Your task to perform on an android device: What is the news today? Image 0: 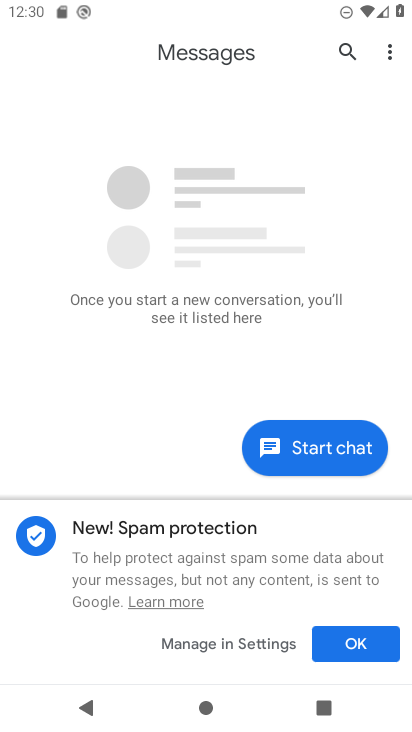
Step 0: press home button
Your task to perform on an android device: What is the news today? Image 1: 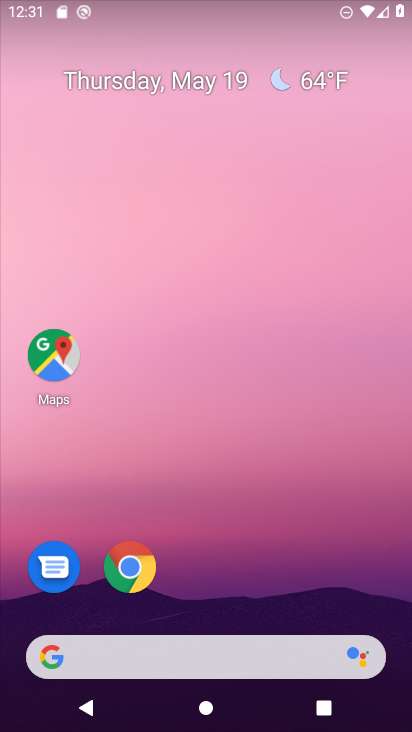
Step 1: drag from (244, 578) to (280, 71)
Your task to perform on an android device: What is the news today? Image 2: 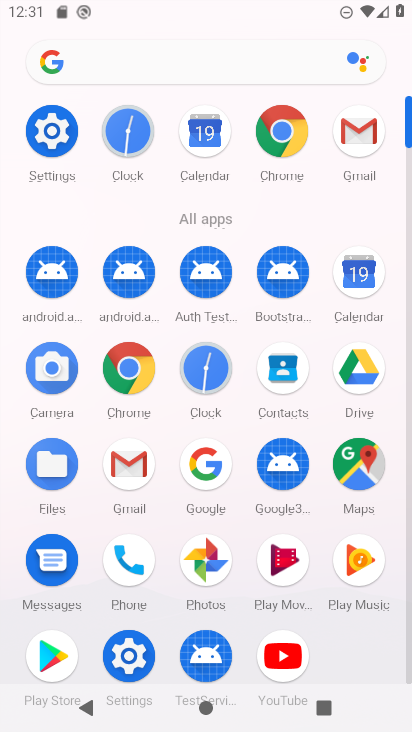
Step 2: click (234, 468)
Your task to perform on an android device: What is the news today? Image 3: 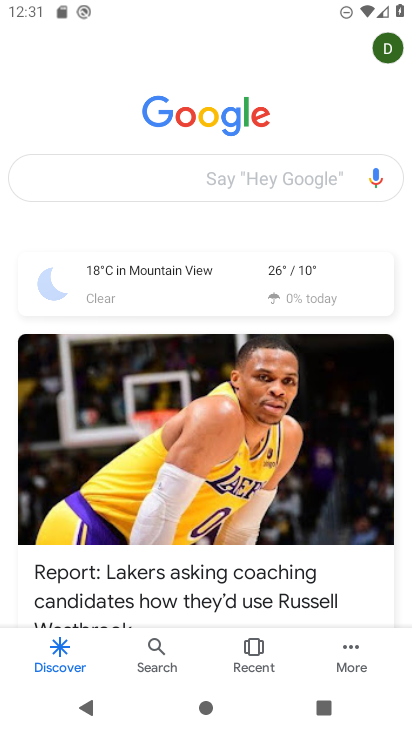
Step 3: click (191, 189)
Your task to perform on an android device: What is the news today? Image 4: 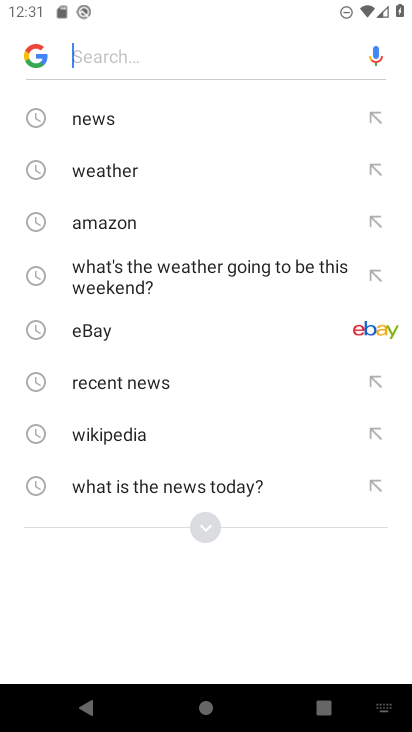
Step 4: click (126, 123)
Your task to perform on an android device: What is the news today? Image 5: 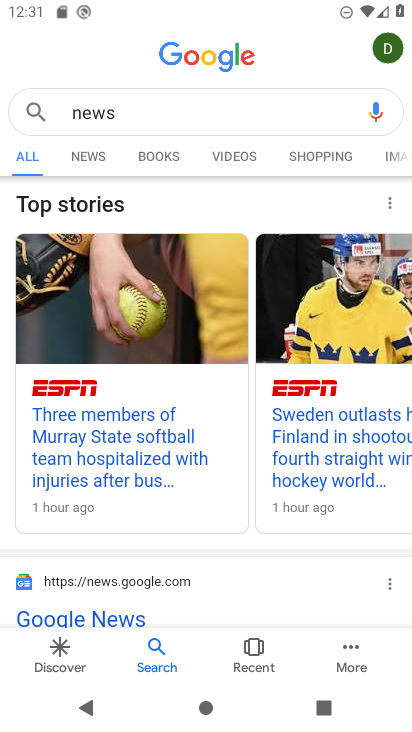
Step 5: task complete